Your task to perform on an android device: turn on airplane mode Image 0: 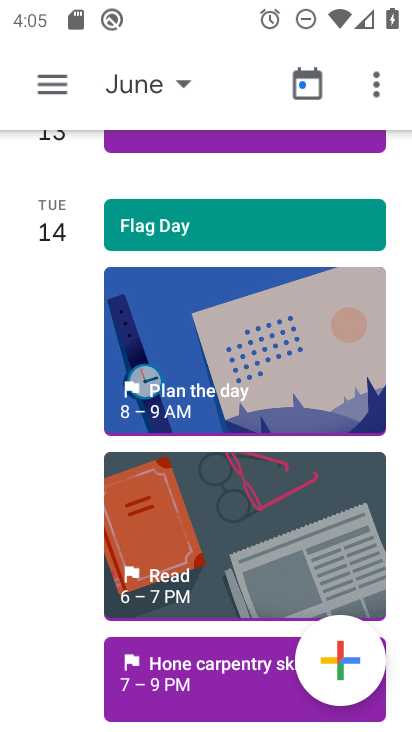
Step 0: drag from (110, 586) to (211, 156)
Your task to perform on an android device: turn on airplane mode Image 1: 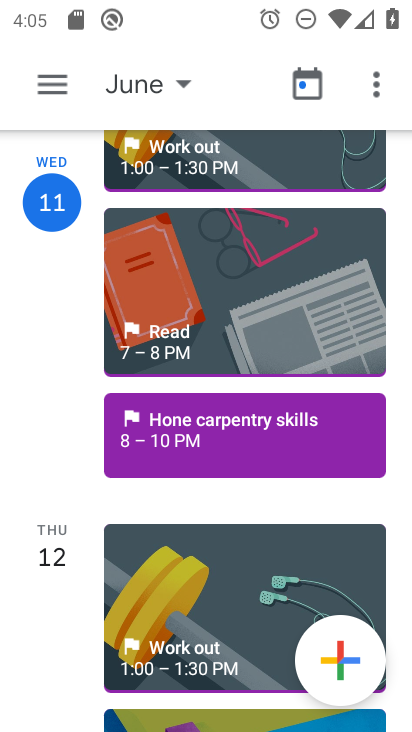
Step 1: press back button
Your task to perform on an android device: turn on airplane mode Image 2: 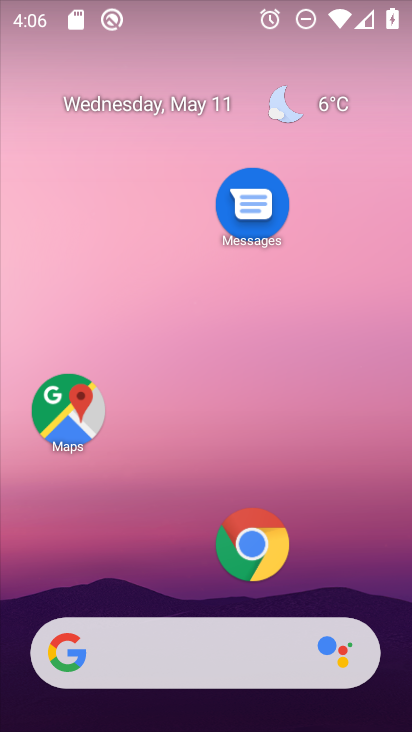
Step 2: drag from (130, 508) to (228, 65)
Your task to perform on an android device: turn on airplane mode Image 3: 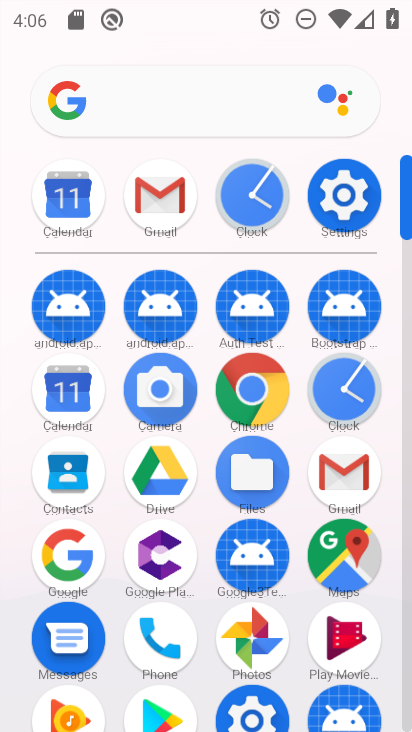
Step 3: drag from (241, 6) to (213, 634)
Your task to perform on an android device: turn on airplane mode Image 4: 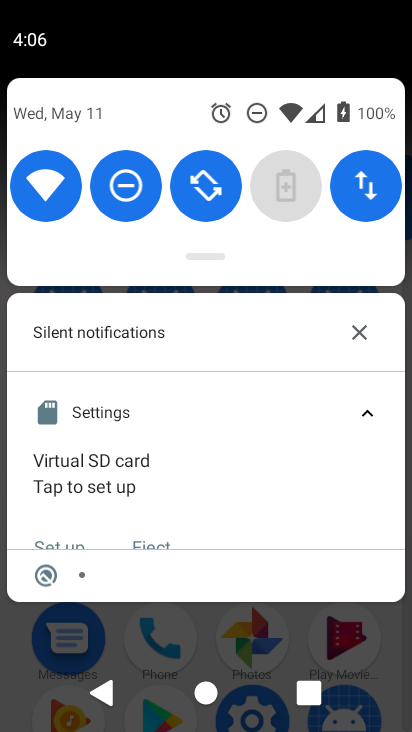
Step 4: drag from (191, 248) to (186, 680)
Your task to perform on an android device: turn on airplane mode Image 5: 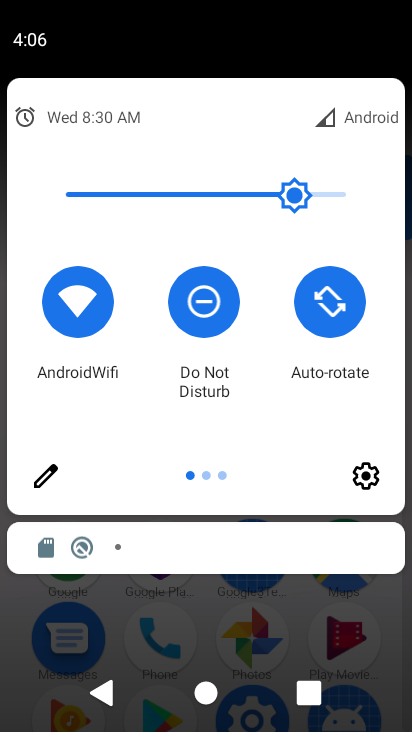
Step 5: drag from (386, 328) to (0, 322)
Your task to perform on an android device: turn on airplane mode Image 6: 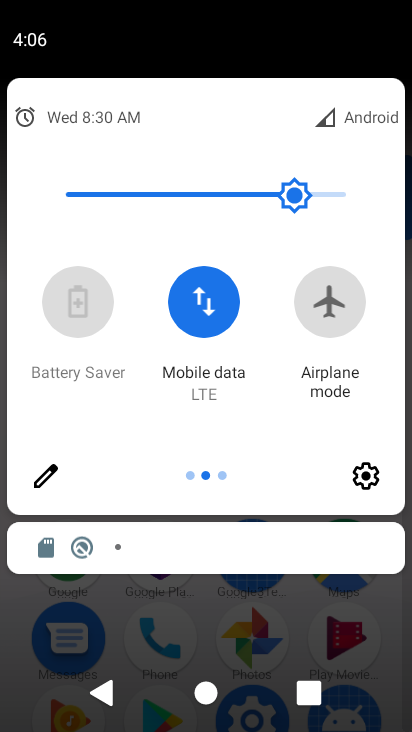
Step 6: click (343, 299)
Your task to perform on an android device: turn on airplane mode Image 7: 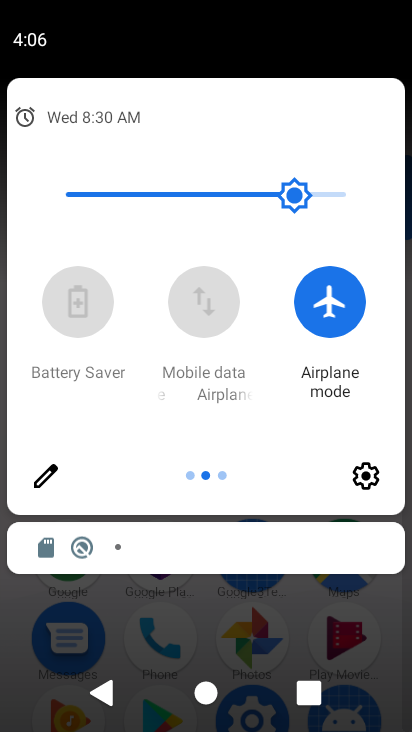
Step 7: task complete